Your task to perform on an android device: check data usage Image 0: 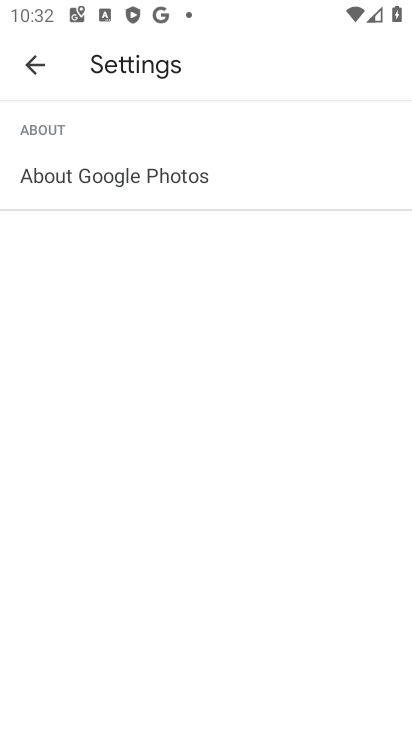
Step 0: press home button
Your task to perform on an android device: check data usage Image 1: 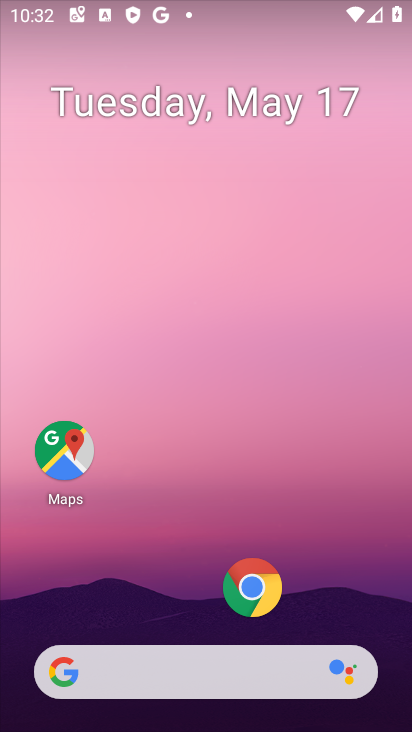
Step 1: drag from (218, 572) to (128, 92)
Your task to perform on an android device: check data usage Image 2: 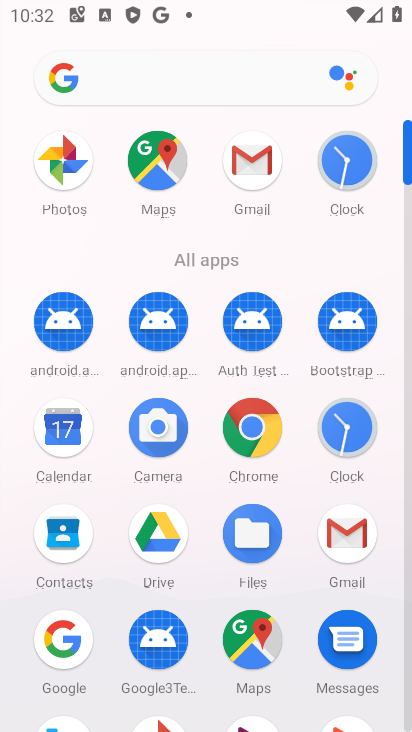
Step 2: drag from (120, 273) to (96, 33)
Your task to perform on an android device: check data usage Image 3: 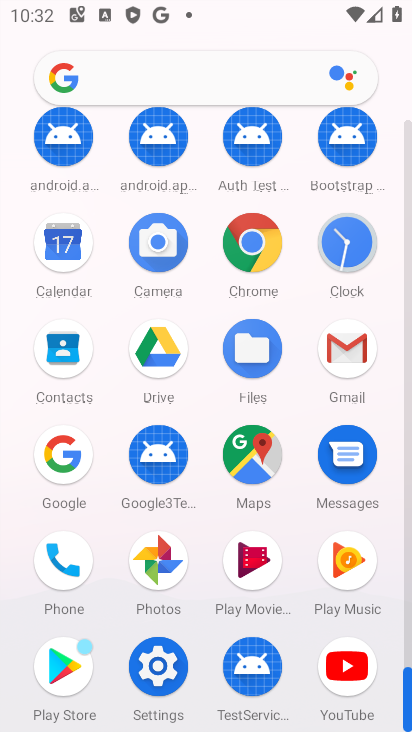
Step 3: click (153, 687)
Your task to perform on an android device: check data usage Image 4: 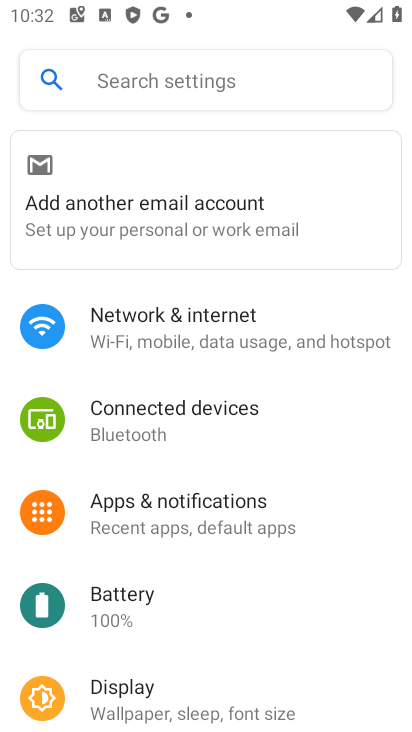
Step 4: drag from (241, 521) to (229, 311)
Your task to perform on an android device: check data usage Image 5: 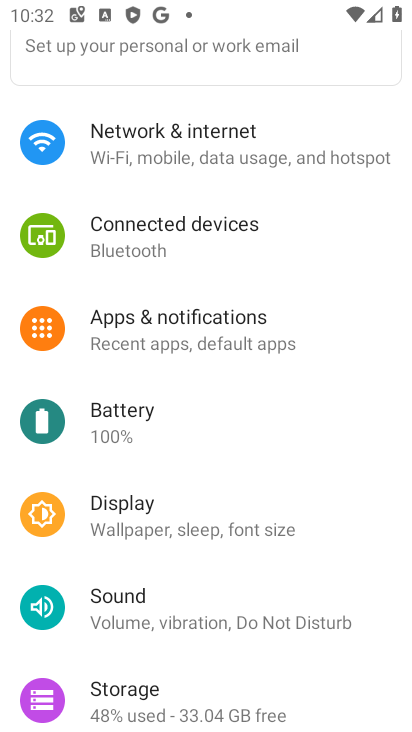
Step 5: click (246, 147)
Your task to perform on an android device: check data usage Image 6: 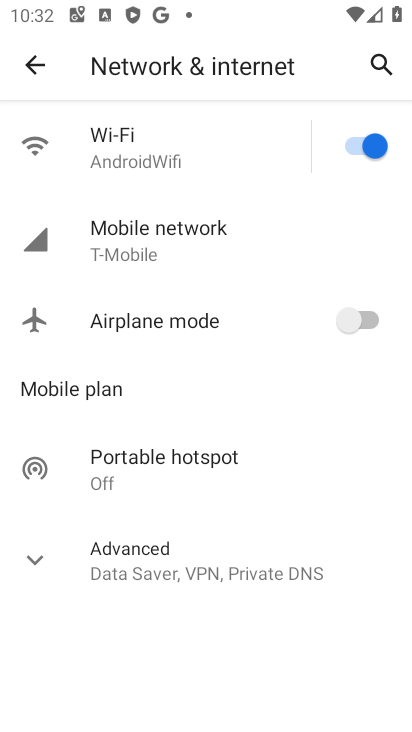
Step 6: click (184, 222)
Your task to perform on an android device: check data usage Image 7: 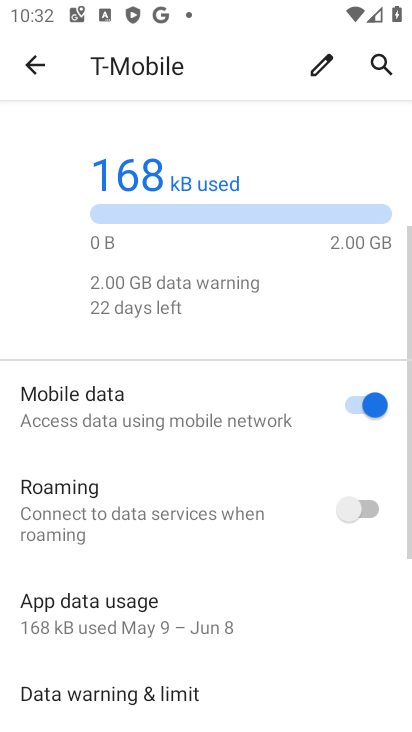
Step 7: drag from (155, 562) to (136, 328)
Your task to perform on an android device: check data usage Image 8: 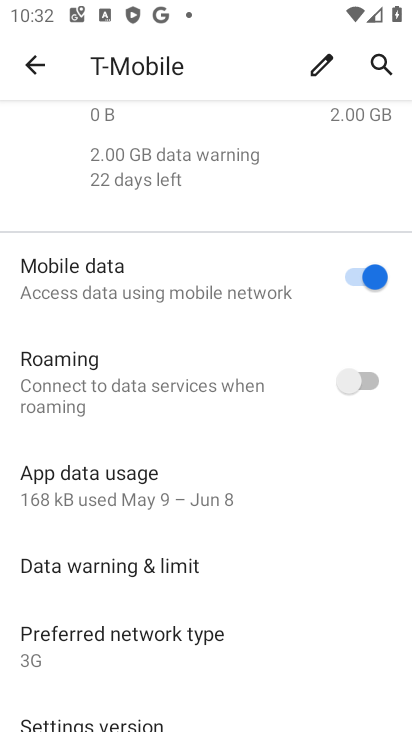
Step 8: click (168, 487)
Your task to perform on an android device: check data usage Image 9: 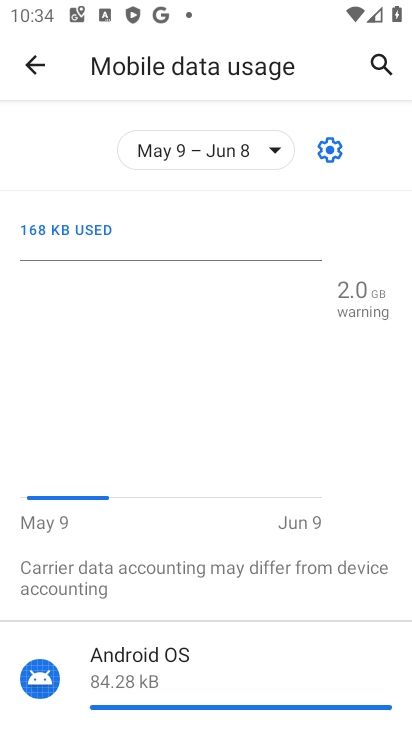
Step 9: task complete